Your task to perform on an android device: What is the news today? Image 0: 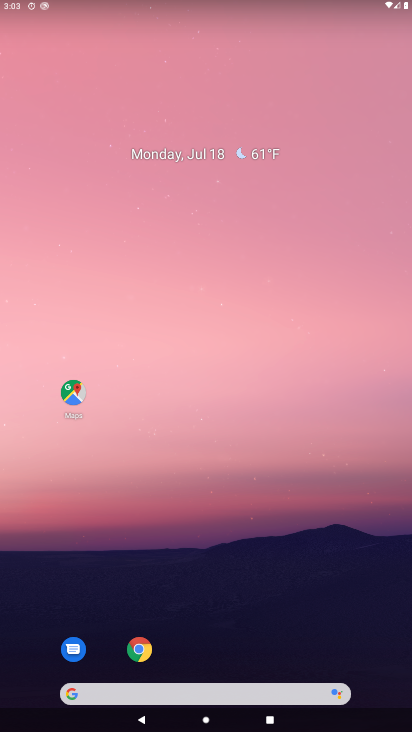
Step 0: click (104, 687)
Your task to perform on an android device: What is the news today? Image 1: 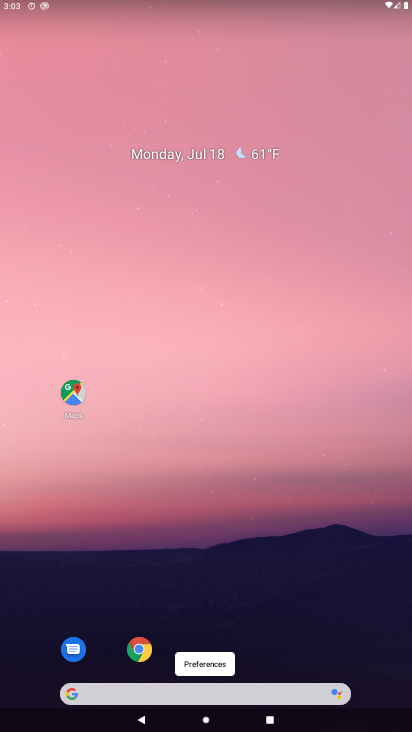
Step 1: click (149, 690)
Your task to perform on an android device: What is the news today? Image 2: 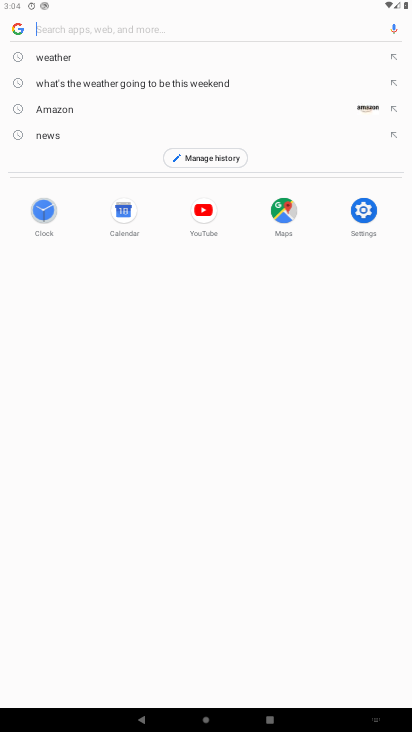
Step 2: type "What is the news today?"
Your task to perform on an android device: What is the news today? Image 3: 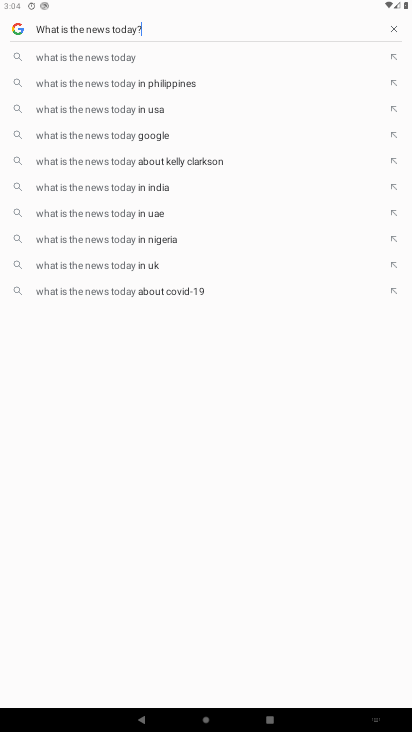
Step 3: type ""
Your task to perform on an android device: What is the news today? Image 4: 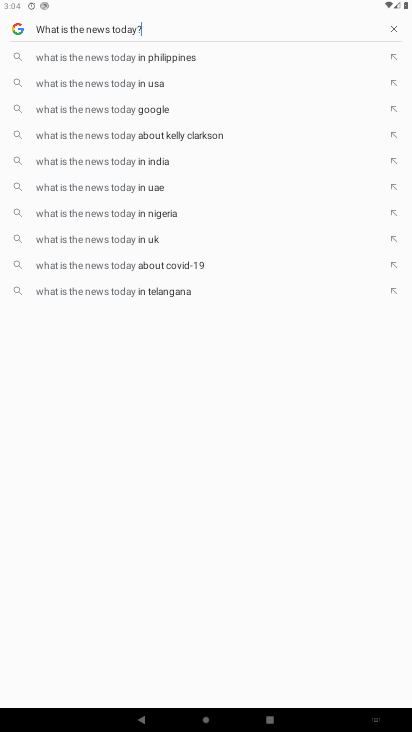
Step 4: type ""
Your task to perform on an android device: What is the news today? Image 5: 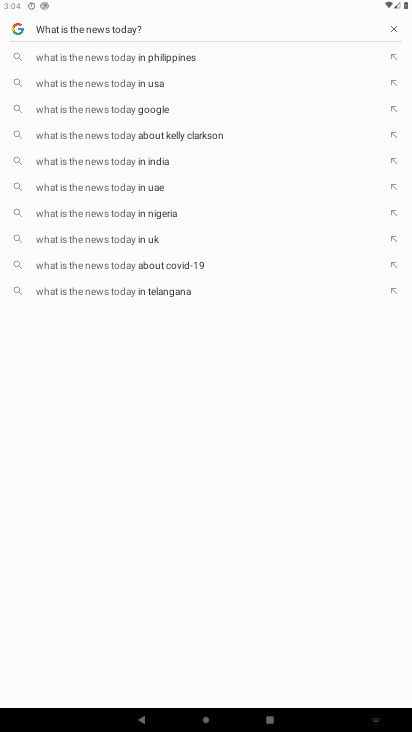
Step 5: type ""
Your task to perform on an android device: What is the news today? Image 6: 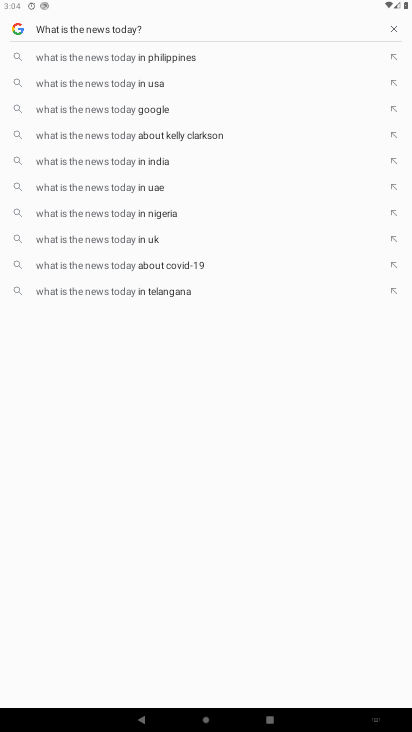
Step 6: task complete